Your task to perform on an android device: turn notification dots off Image 0: 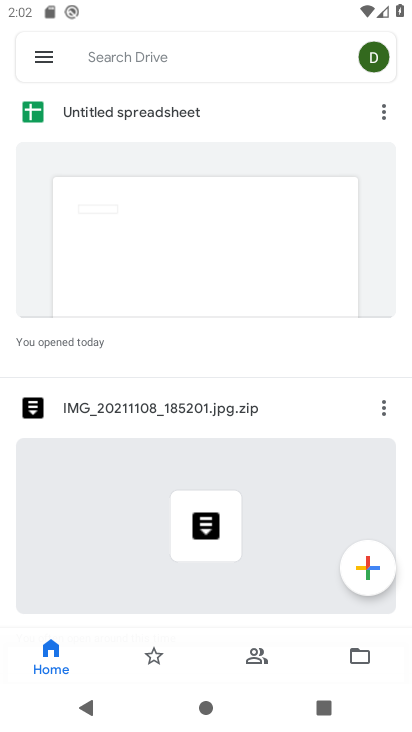
Step 0: press home button
Your task to perform on an android device: turn notification dots off Image 1: 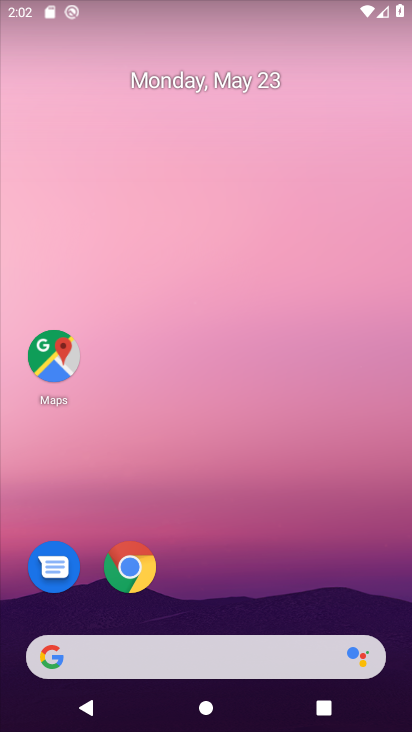
Step 1: drag from (254, 569) to (254, 74)
Your task to perform on an android device: turn notification dots off Image 2: 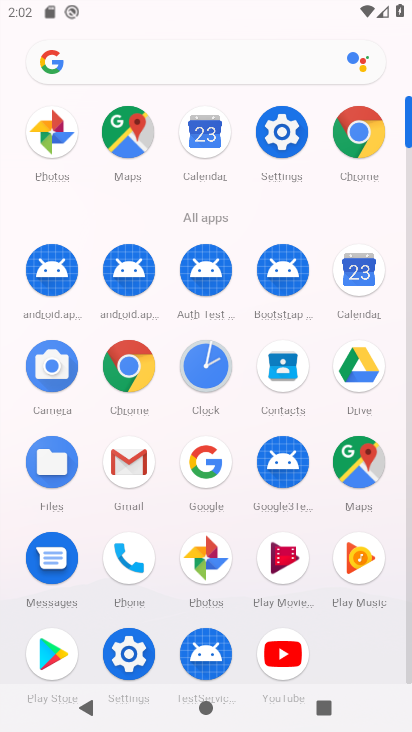
Step 2: click (296, 154)
Your task to perform on an android device: turn notification dots off Image 3: 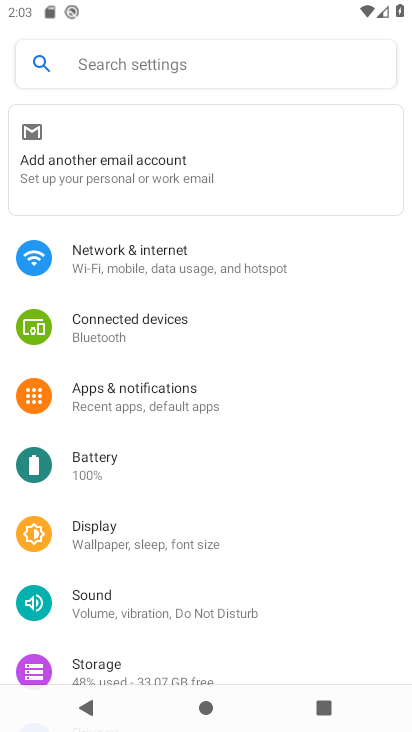
Step 3: click (191, 383)
Your task to perform on an android device: turn notification dots off Image 4: 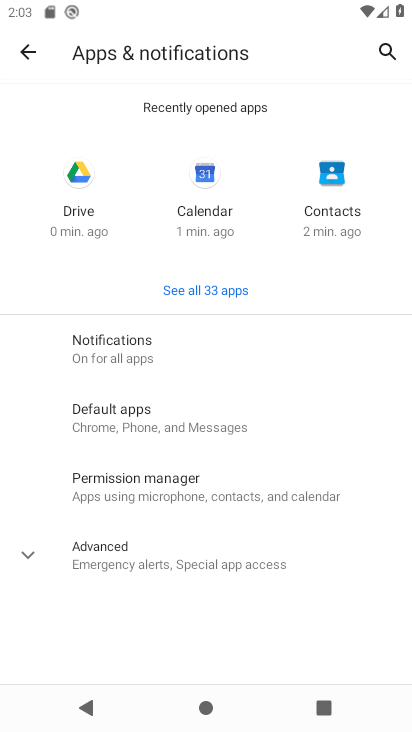
Step 4: click (178, 356)
Your task to perform on an android device: turn notification dots off Image 5: 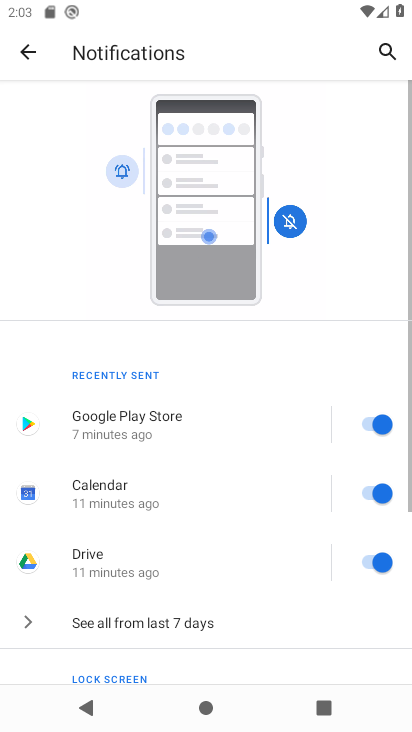
Step 5: drag from (248, 592) to (264, 131)
Your task to perform on an android device: turn notification dots off Image 6: 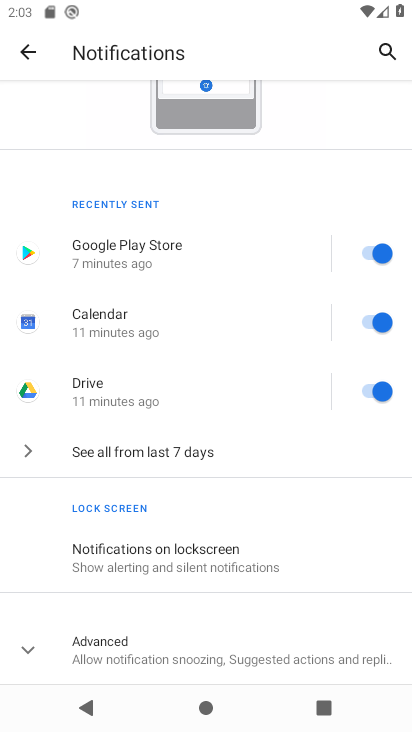
Step 6: click (261, 657)
Your task to perform on an android device: turn notification dots off Image 7: 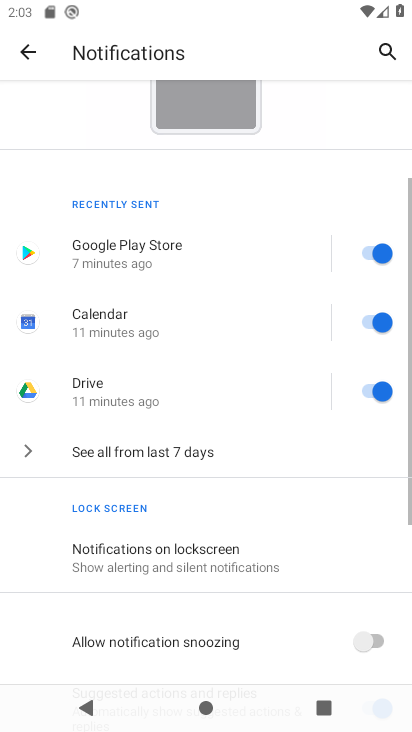
Step 7: drag from (297, 624) to (311, 225)
Your task to perform on an android device: turn notification dots off Image 8: 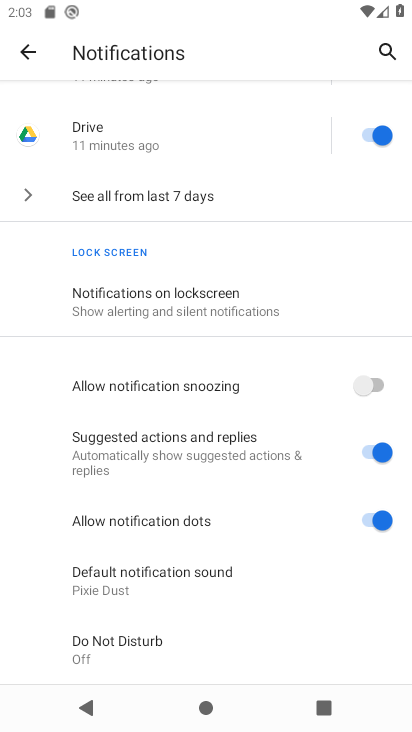
Step 8: click (370, 514)
Your task to perform on an android device: turn notification dots off Image 9: 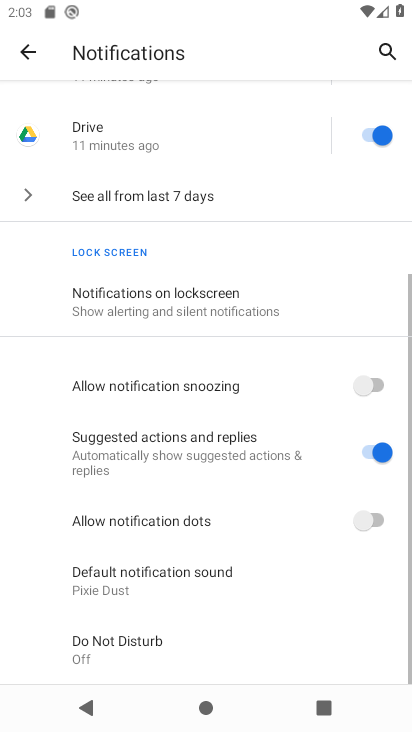
Step 9: task complete